Your task to perform on an android device: visit the assistant section in the google photos Image 0: 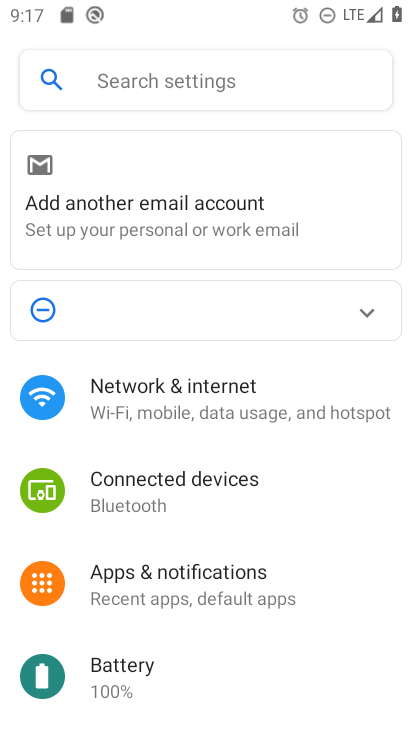
Step 0: press home button
Your task to perform on an android device: visit the assistant section in the google photos Image 1: 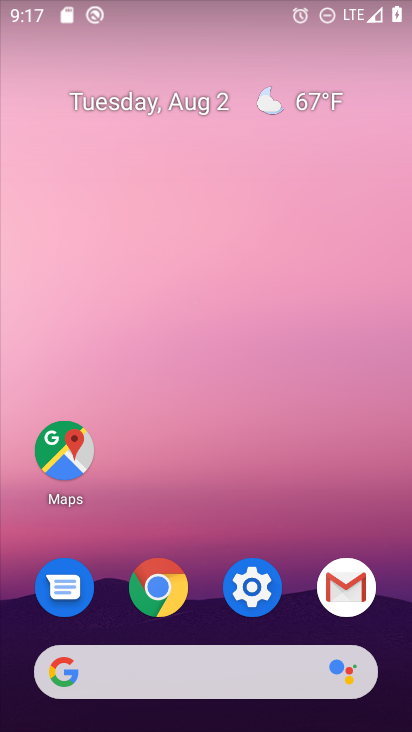
Step 1: drag from (246, 688) to (126, 170)
Your task to perform on an android device: visit the assistant section in the google photos Image 2: 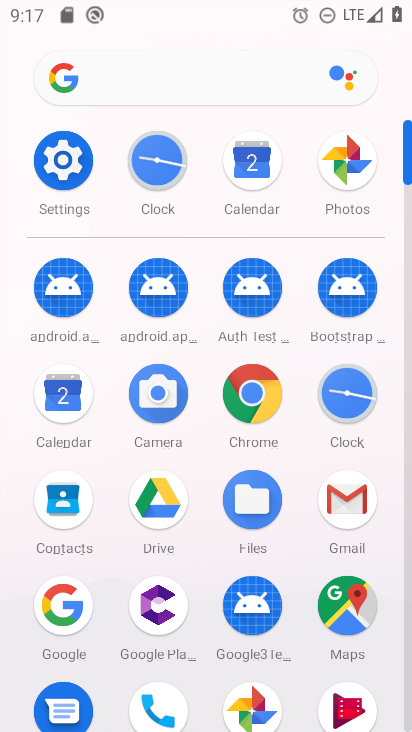
Step 2: click (253, 695)
Your task to perform on an android device: visit the assistant section in the google photos Image 3: 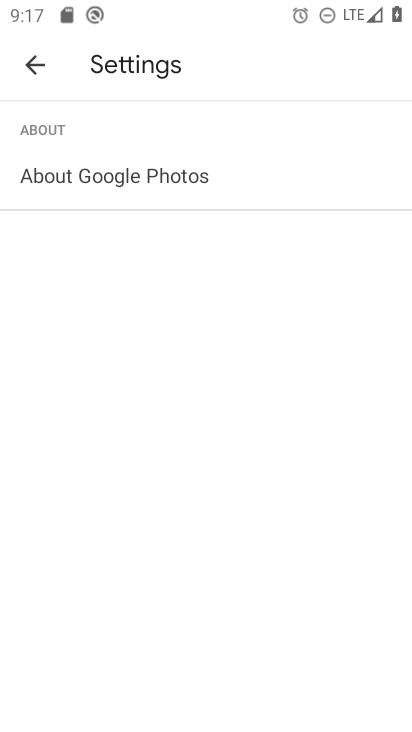
Step 3: click (24, 64)
Your task to perform on an android device: visit the assistant section in the google photos Image 4: 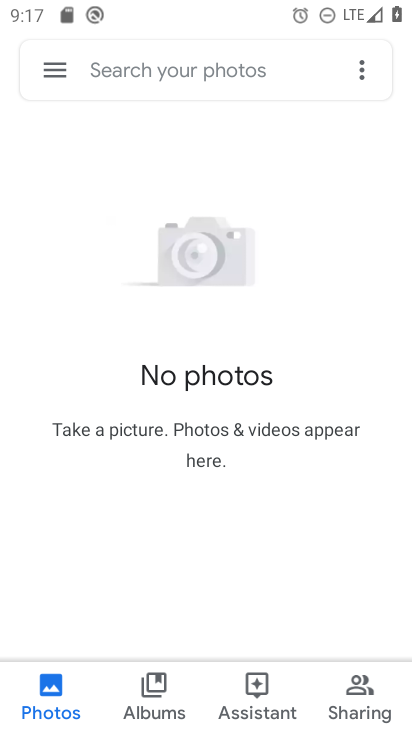
Step 4: click (250, 712)
Your task to perform on an android device: visit the assistant section in the google photos Image 5: 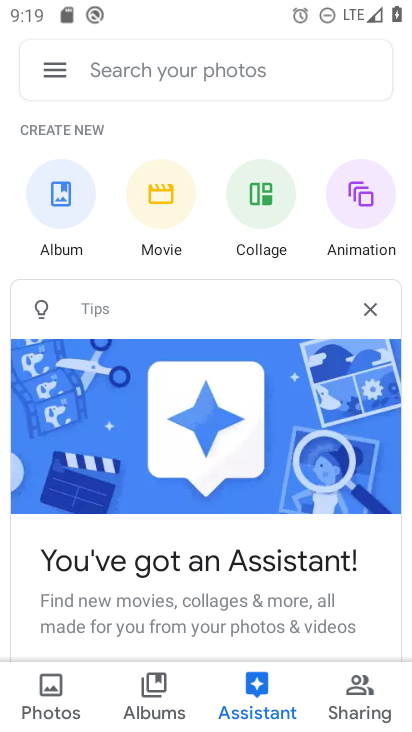
Step 5: task complete